Your task to perform on an android device: Search for seafood restaurants on Google Maps Image 0: 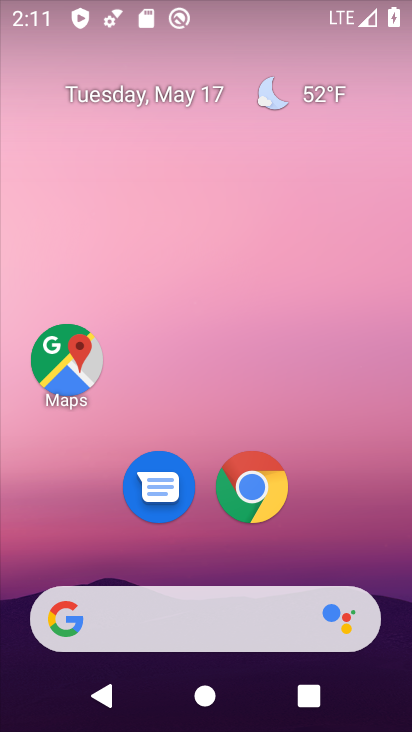
Step 0: click (76, 360)
Your task to perform on an android device: Search for seafood restaurants on Google Maps Image 1: 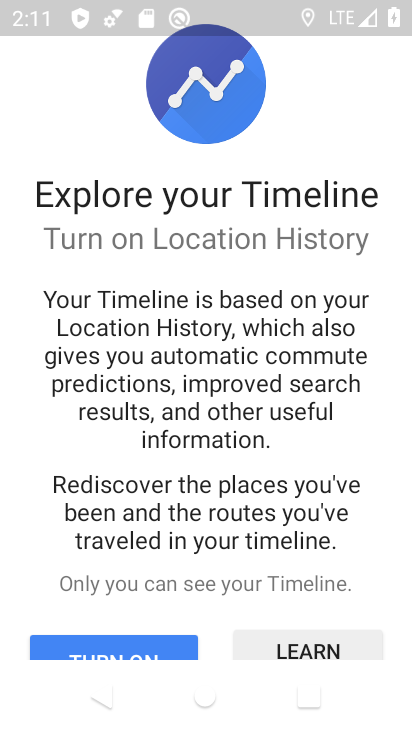
Step 1: press back button
Your task to perform on an android device: Search for seafood restaurants on Google Maps Image 2: 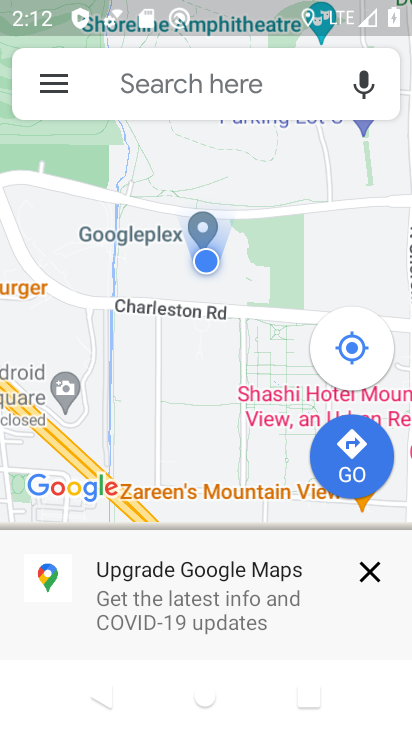
Step 2: click (86, 85)
Your task to perform on an android device: Search for seafood restaurants on Google Maps Image 3: 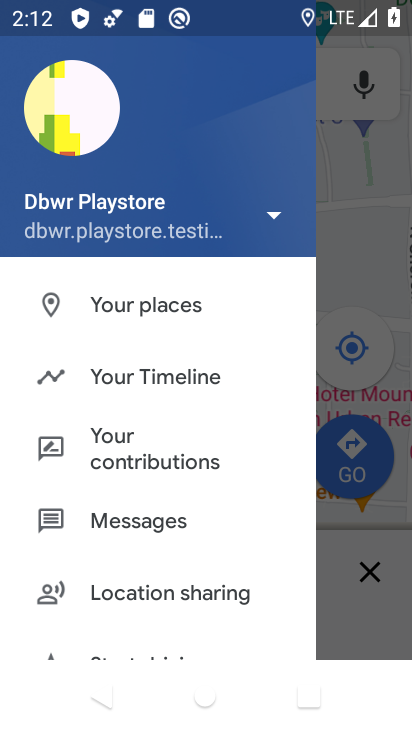
Step 3: press back button
Your task to perform on an android device: Search for seafood restaurants on Google Maps Image 4: 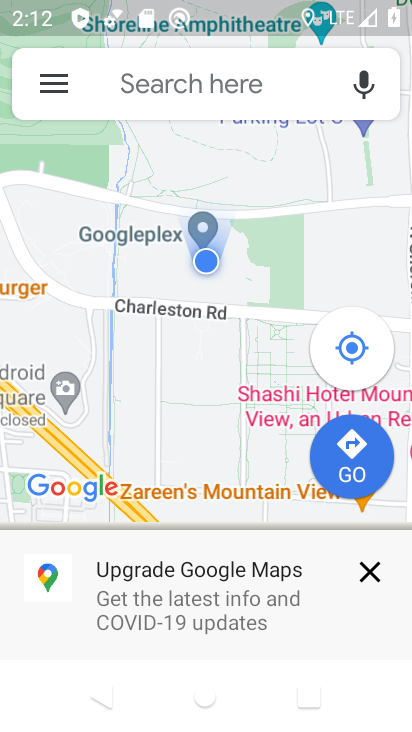
Step 4: click (93, 88)
Your task to perform on an android device: Search for seafood restaurants on Google Maps Image 5: 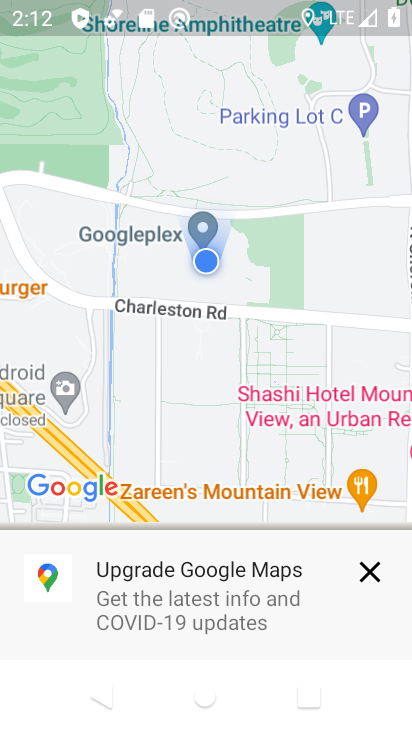
Step 5: press back button
Your task to perform on an android device: Search for seafood restaurants on Google Maps Image 6: 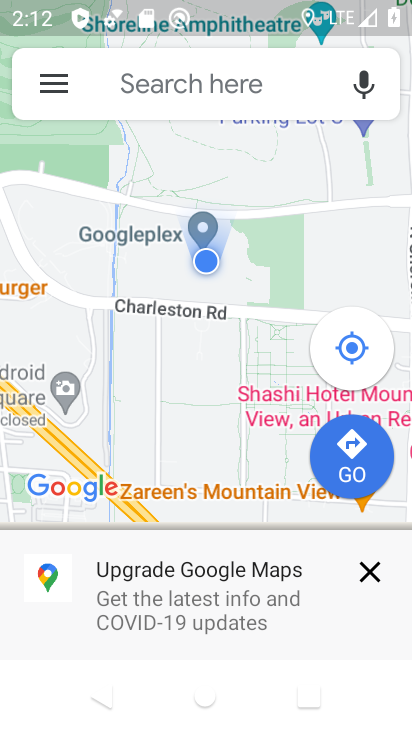
Step 6: click (147, 87)
Your task to perform on an android device: Search for seafood restaurants on Google Maps Image 7: 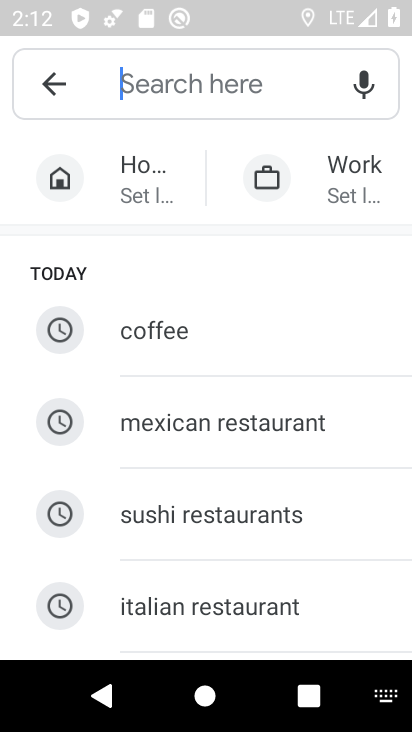
Step 7: type "seafood restaurants"
Your task to perform on an android device: Search for seafood restaurants on Google Maps Image 8: 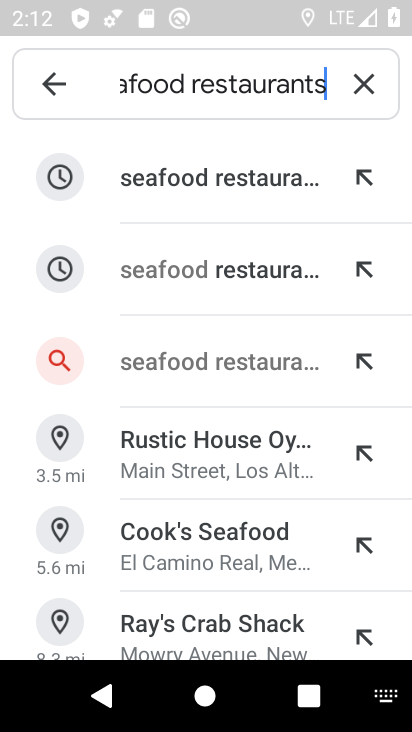
Step 8: click (205, 173)
Your task to perform on an android device: Search for seafood restaurants on Google Maps Image 9: 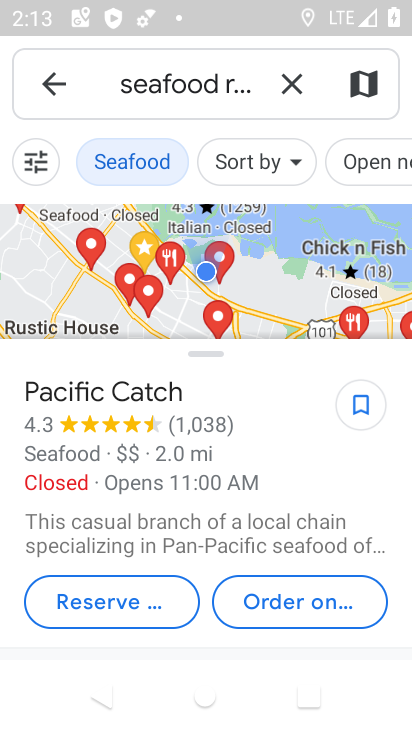
Step 9: task complete